Your task to perform on an android device: Open network settings Image 0: 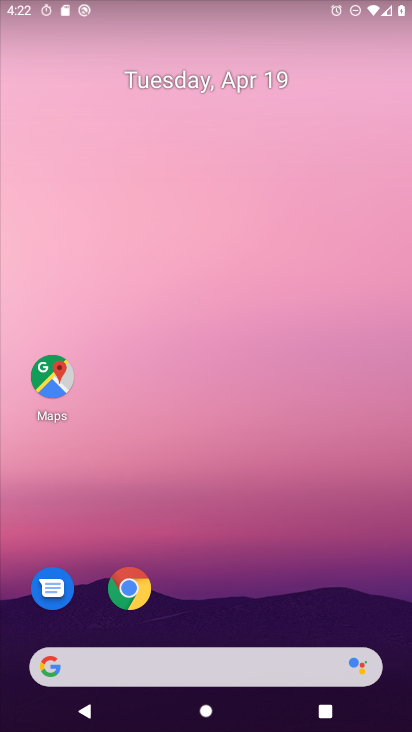
Step 0: drag from (219, 492) to (206, 126)
Your task to perform on an android device: Open network settings Image 1: 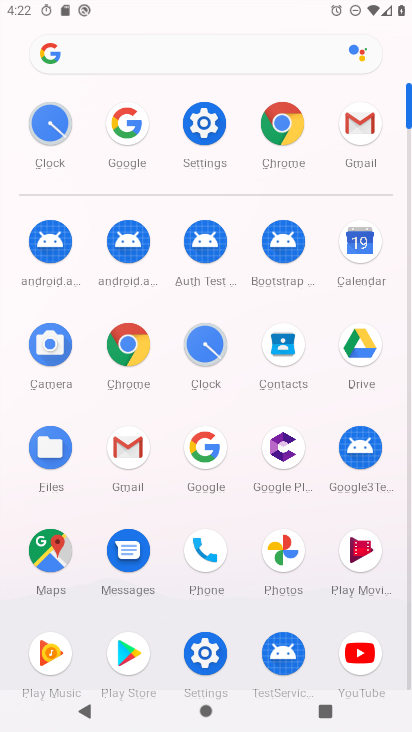
Step 1: click (200, 127)
Your task to perform on an android device: Open network settings Image 2: 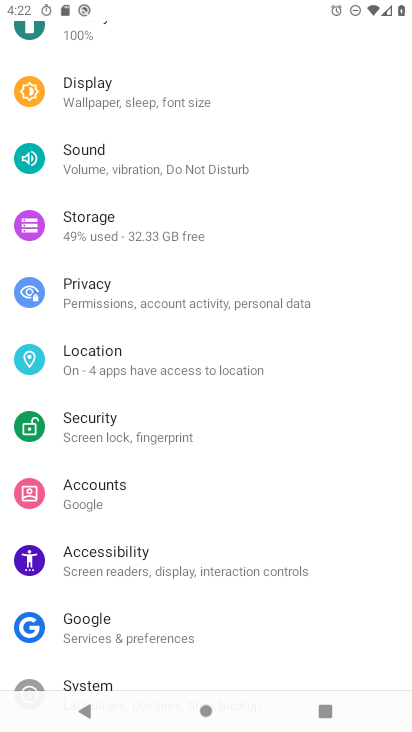
Step 2: drag from (168, 119) to (136, 618)
Your task to perform on an android device: Open network settings Image 3: 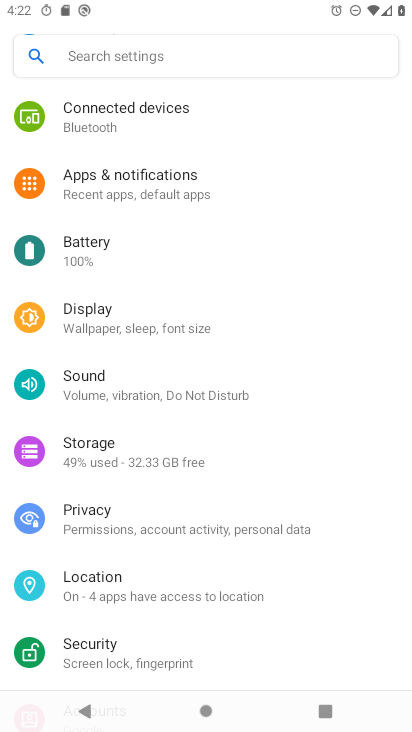
Step 3: drag from (195, 157) to (207, 655)
Your task to perform on an android device: Open network settings Image 4: 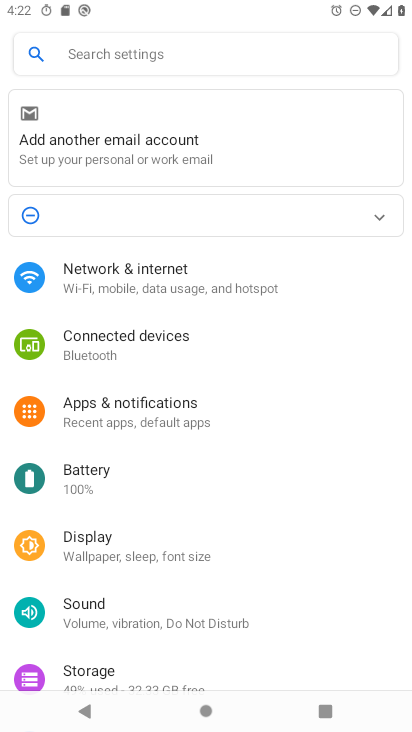
Step 4: click (187, 265)
Your task to perform on an android device: Open network settings Image 5: 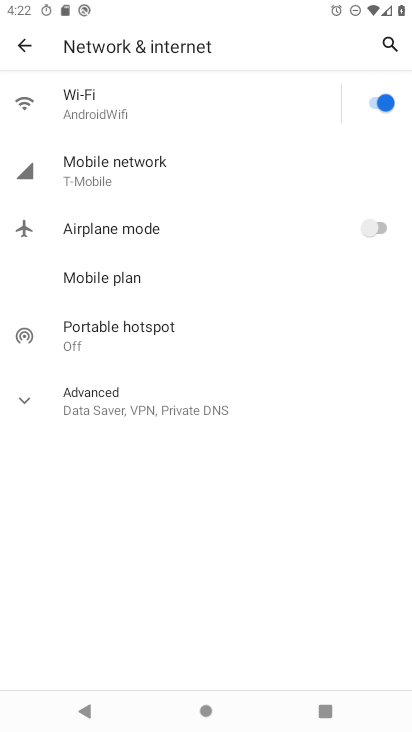
Step 5: click (161, 166)
Your task to perform on an android device: Open network settings Image 6: 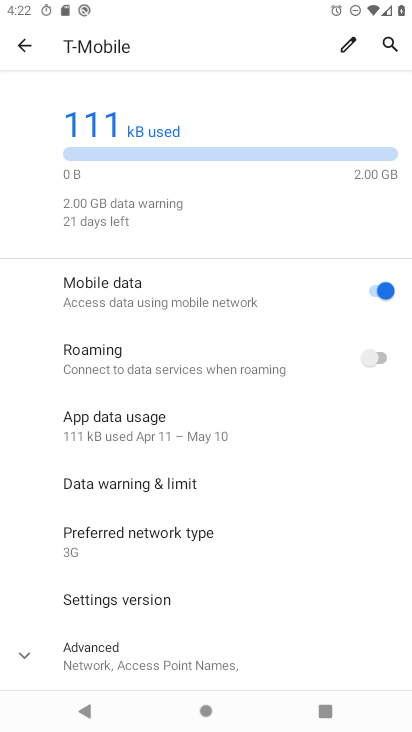
Step 6: click (172, 655)
Your task to perform on an android device: Open network settings Image 7: 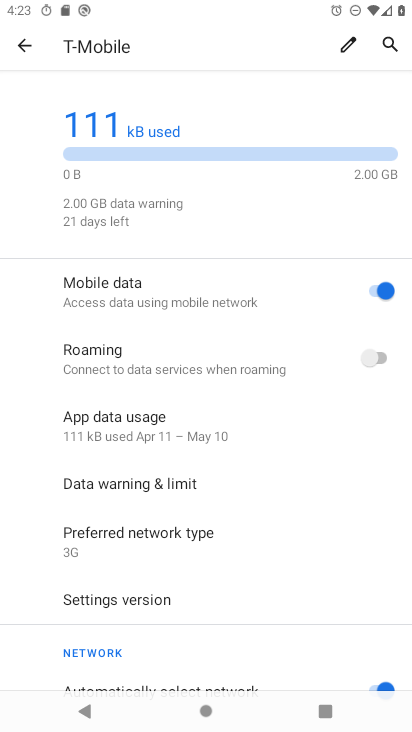
Step 7: task complete